Your task to perform on an android device: Open calendar and show me the fourth week of next month Image 0: 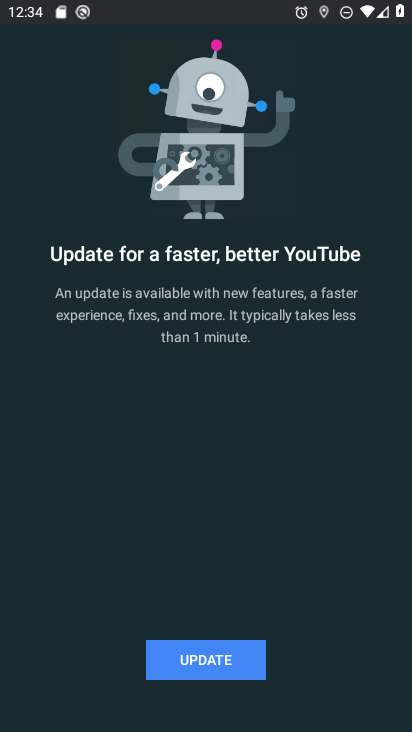
Step 0: press home button
Your task to perform on an android device: Open calendar and show me the fourth week of next month Image 1: 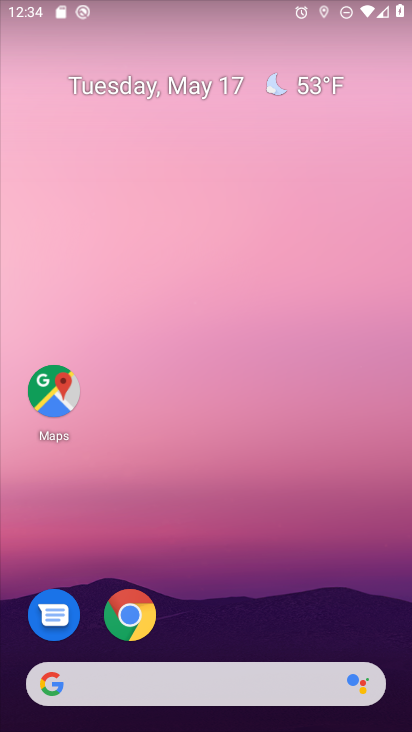
Step 1: drag from (198, 655) to (198, 300)
Your task to perform on an android device: Open calendar and show me the fourth week of next month Image 2: 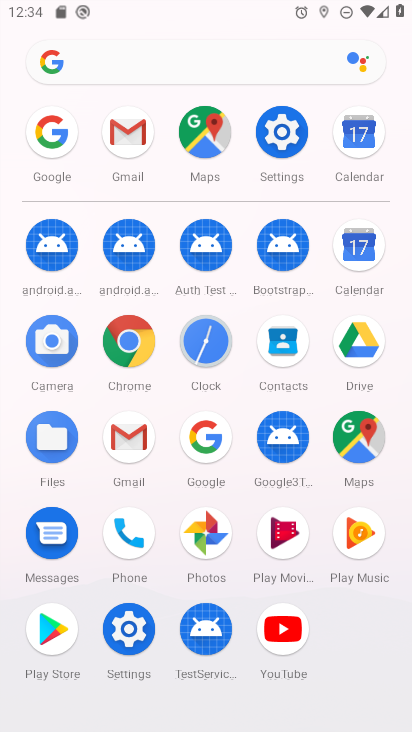
Step 2: click (359, 237)
Your task to perform on an android device: Open calendar and show me the fourth week of next month Image 3: 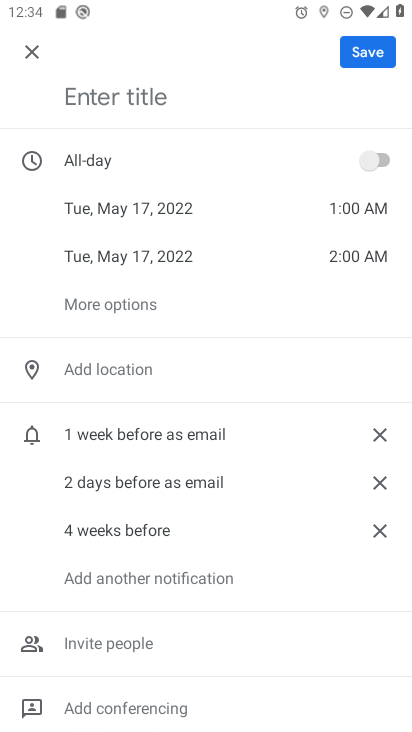
Step 3: click (24, 40)
Your task to perform on an android device: Open calendar and show me the fourth week of next month Image 4: 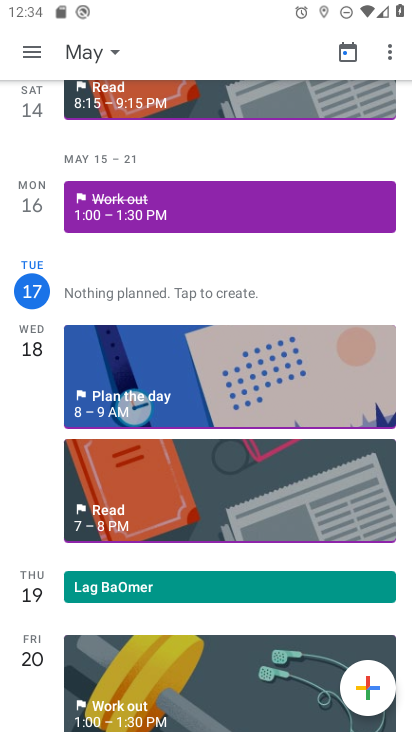
Step 4: click (107, 55)
Your task to perform on an android device: Open calendar and show me the fourth week of next month Image 5: 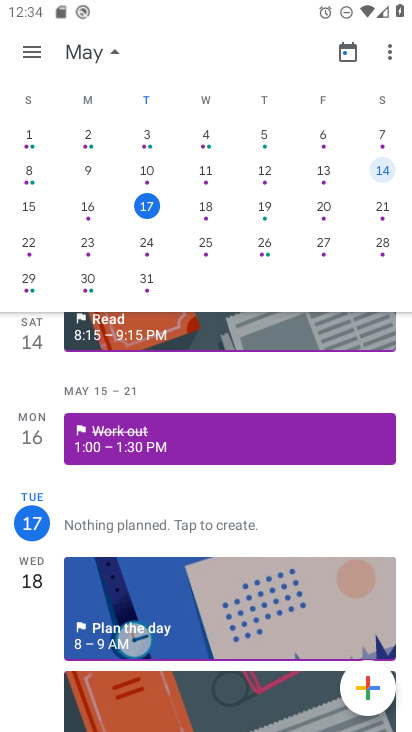
Step 5: drag from (335, 260) to (23, 263)
Your task to perform on an android device: Open calendar and show me the fourth week of next month Image 6: 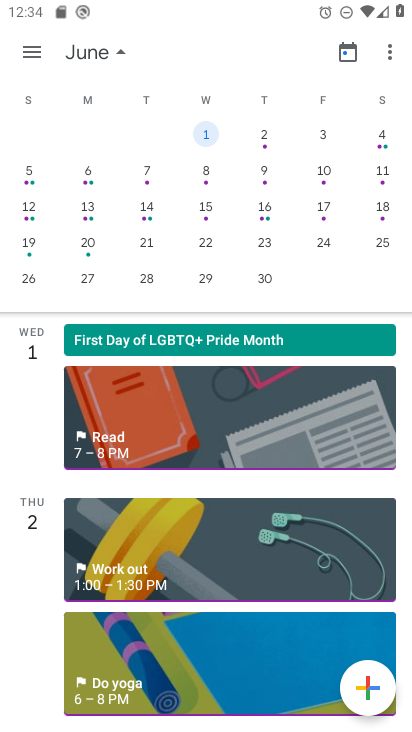
Step 6: click (32, 243)
Your task to perform on an android device: Open calendar and show me the fourth week of next month Image 7: 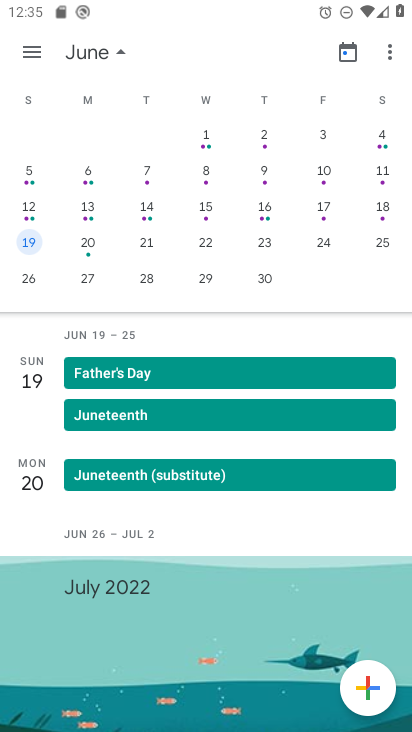
Step 7: task complete